Your task to perform on an android device: Toggle the flashlight Image 0: 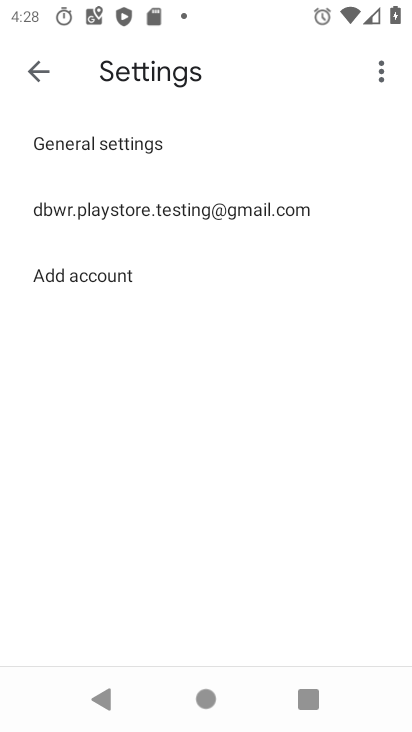
Step 0: press home button
Your task to perform on an android device: Toggle the flashlight Image 1: 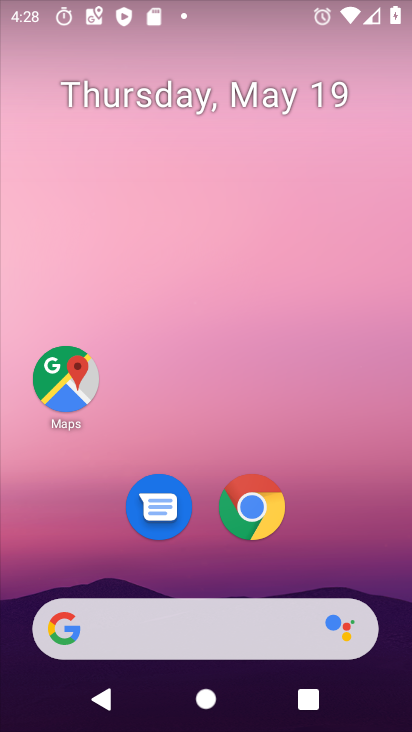
Step 1: drag from (404, 670) to (370, 323)
Your task to perform on an android device: Toggle the flashlight Image 2: 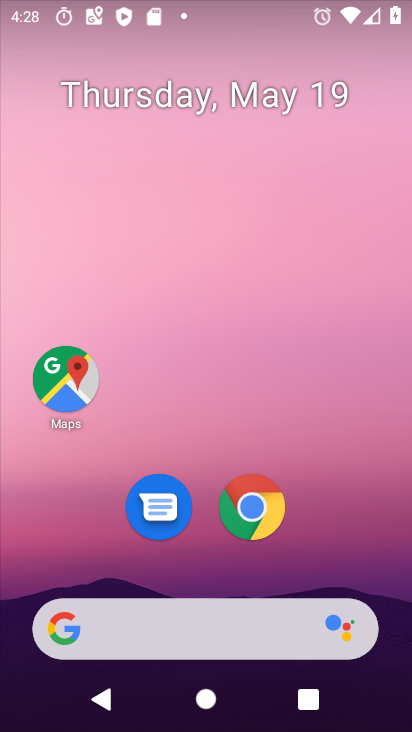
Step 2: drag from (393, 690) to (392, 217)
Your task to perform on an android device: Toggle the flashlight Image 3: 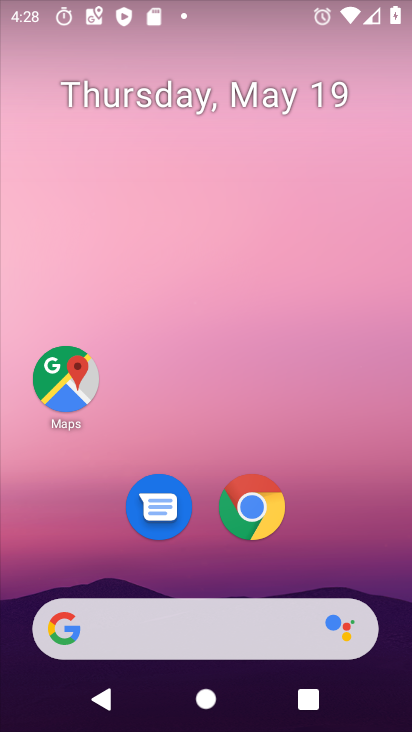
Step 3: drag from (401, 703) to (373, 112)
Your task to perform on an android device: Toggle the flashlight Image 4: 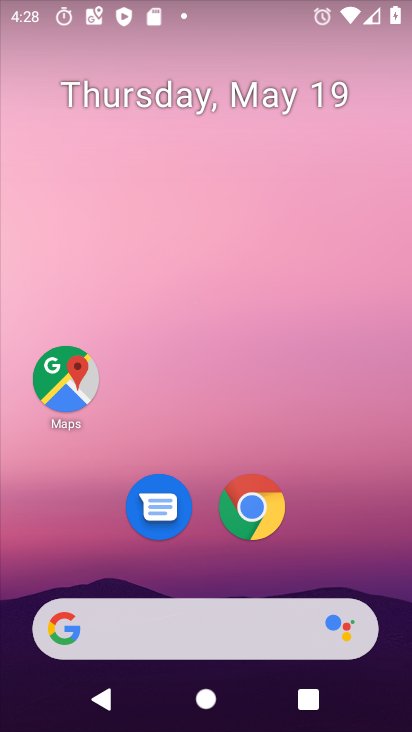
Step 4: drag from (395, 678) to (402, 218)
Your task to perform on an android device: Toggle the flashlight Image 5: 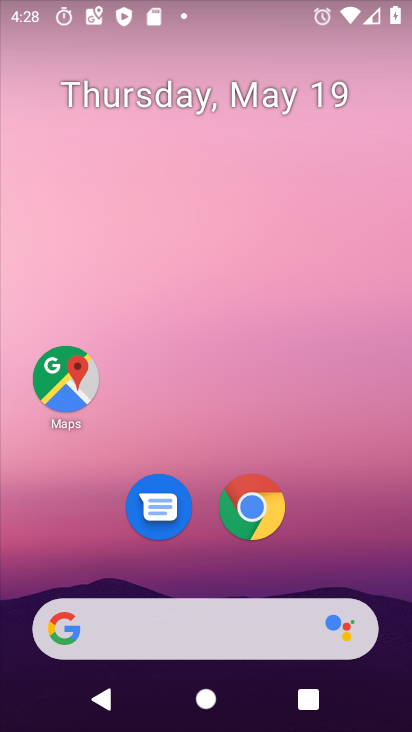
Step 5: drag from (390, 712) to (364, 350)
Your task to perform on an android device: Toggle the flashlight Image 6: 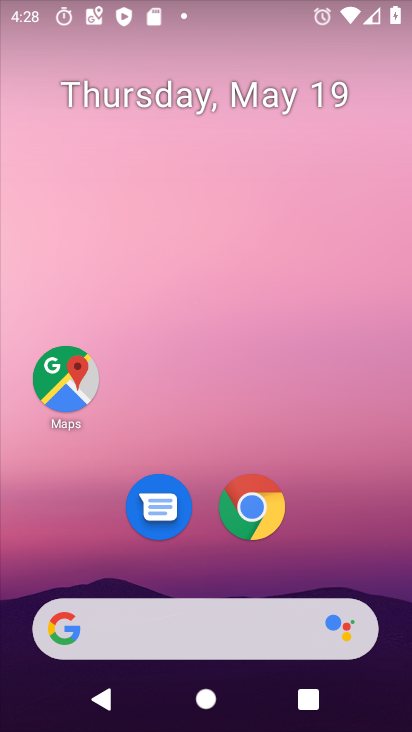
Step 6: drag from (398, 710) to (376, 250)
Your task to perform on an android device: Toggle the flashlight Image 7: 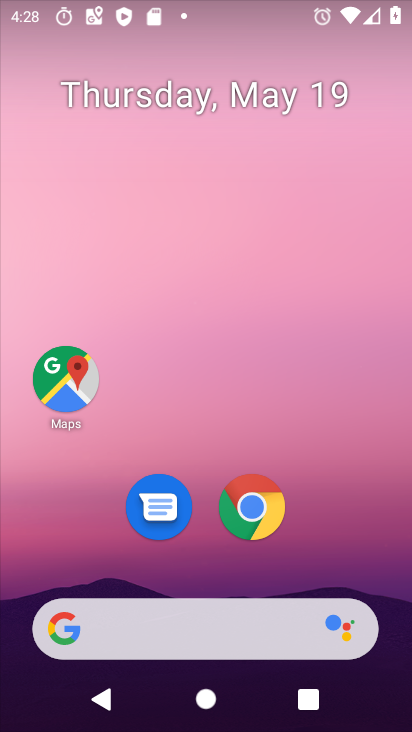
Step 7: drag from (397, 610) to (366, 338)
Your task to perform on an android device: Toggle the flashlight Image 8: 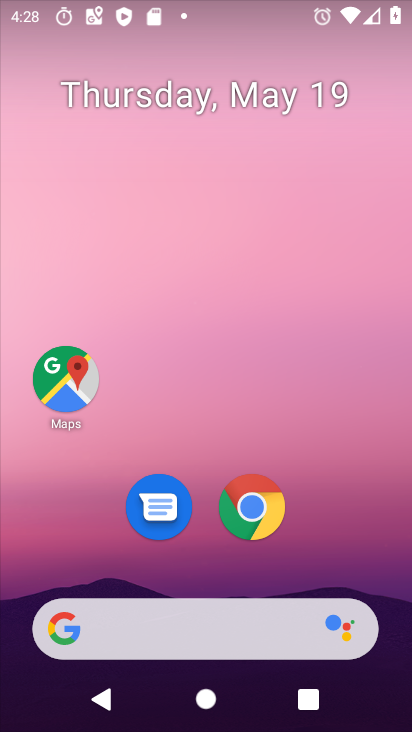
Step 8: drag from (399, 711) to (383, 101)
Your task to perform on an android device: Toggle the flashlight Image 9: 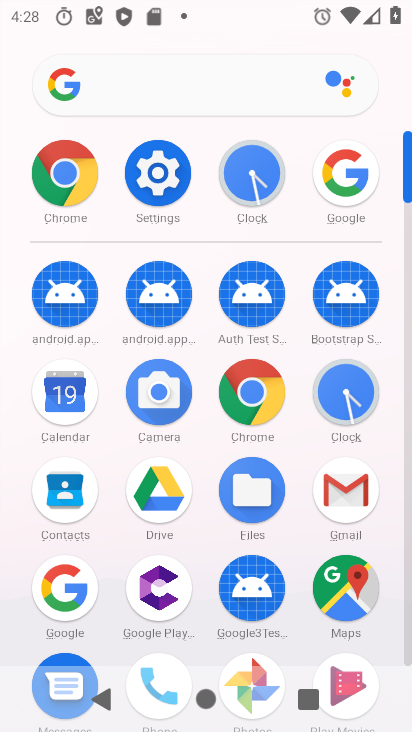
Step 9: click (165, 181)
Your task to perform on an android device: Toggle the flashlight Image 10: 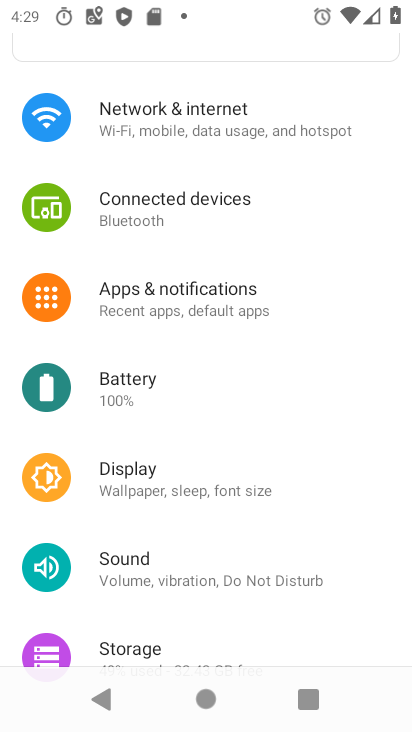
Step 10: click (120, 303)
Your task to perform on an android device: Toggle the flashlight Image 11: 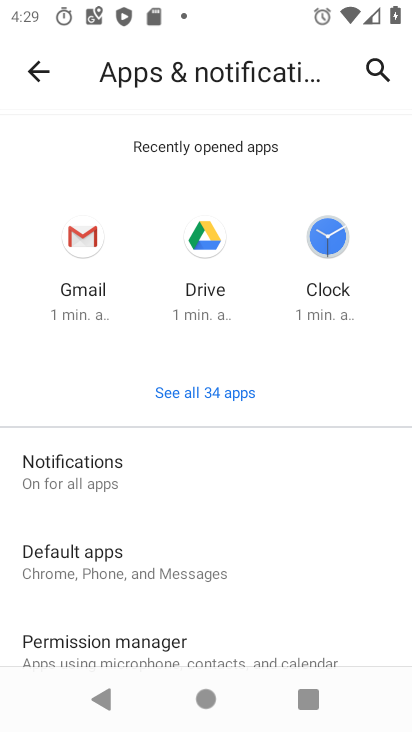
Step 11: click (33, 79)
Your task to perform on an android device: Toggle the flashlight Image 12: 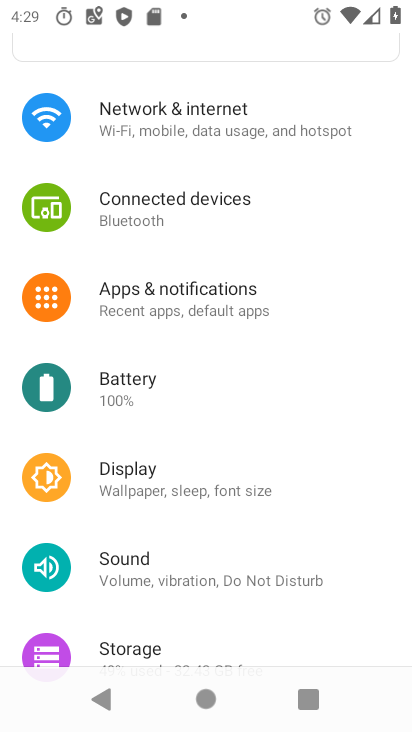
Step 12: drag from (331, 208) to (329, 420)
Your task to perform on an android device: Toggle the flashlight Image 13: 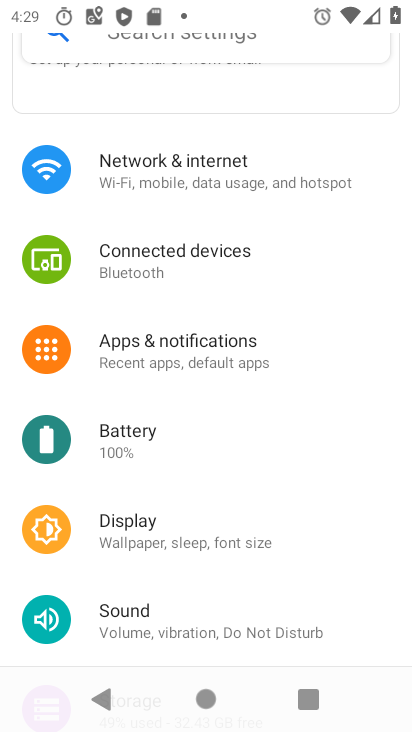
Step 13: click (113, 525)
Your task to perform on an android device: Toggle the flashlight Image 14: 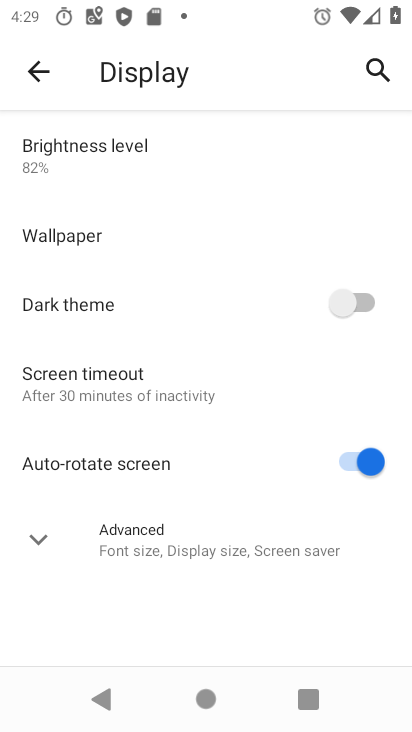
Step 14: task complete